Your task to perform on an android device: check the backup settings in the google photos Image 0: 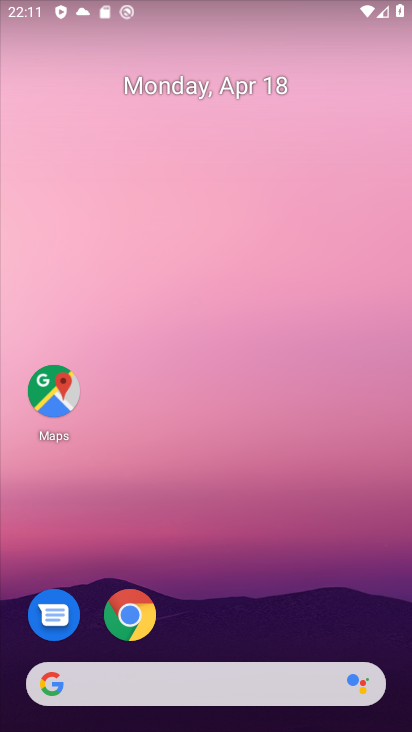
Step 0: drag from (317, 557) to (319, 79)
Your task to perform on an android device: check the backup settings in the google photos Image 1: 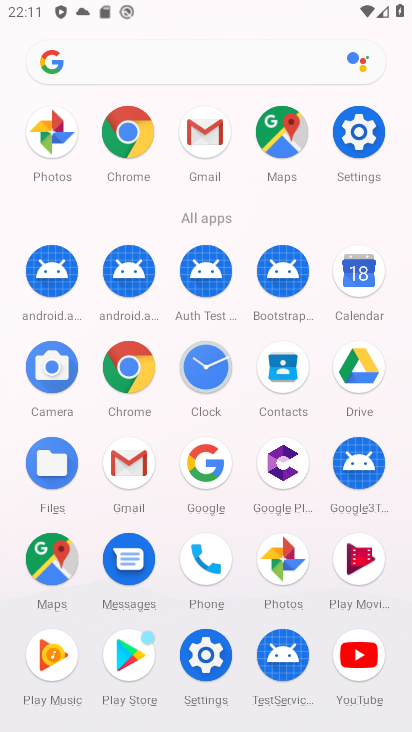
Step 1: click (58, 142)
Your task to perform on an android device: check the backup settings in the google photos Image 2: 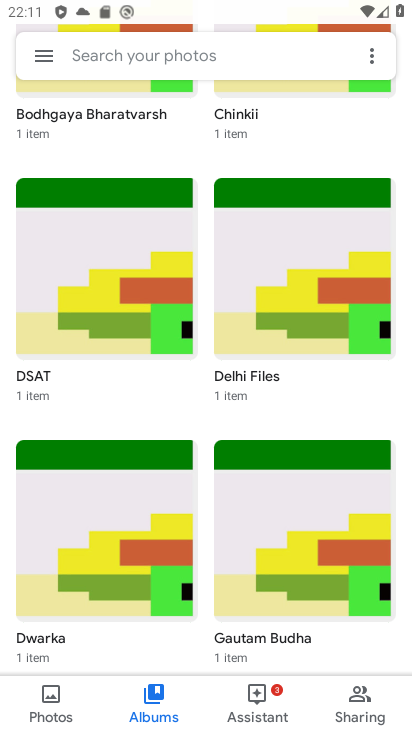
Step 2: click (44, 57)
Your task to perform on an android device: check the backup settings in the google photos Image 3: 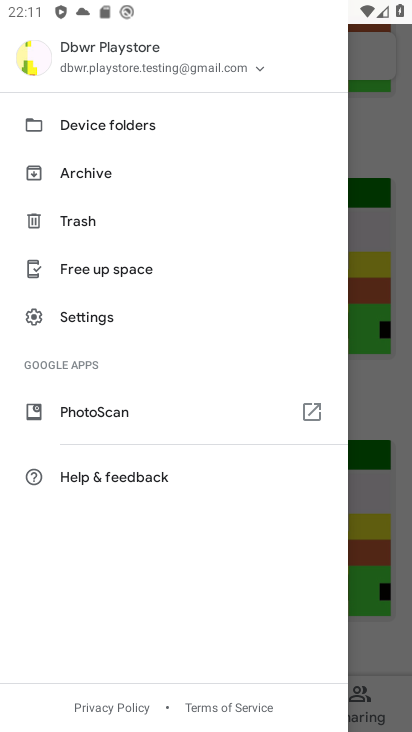
Step 3: click (63, 308)
Your task to perform on an android device: check the backup settings in the google photos Image 4: 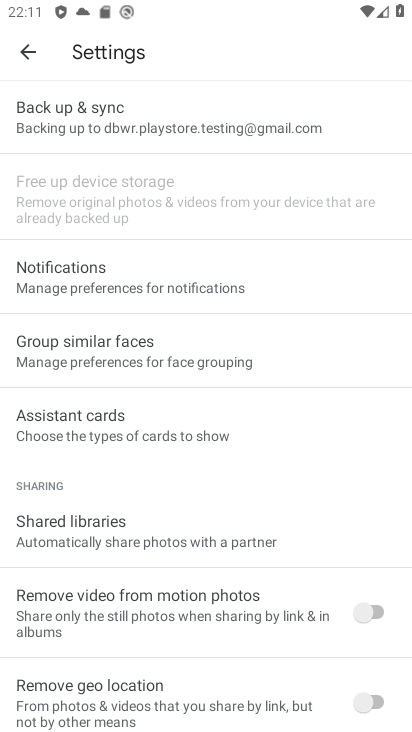
Step 4: click (85, 138)
Your task to perform on an android device: check the backup settings in the google photos Image 5: 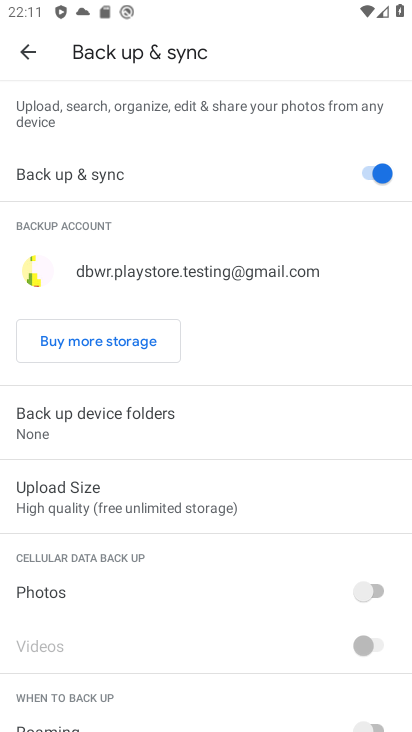
Step 5: task complete